Your task to perform on an android device: check battery use Image 0: 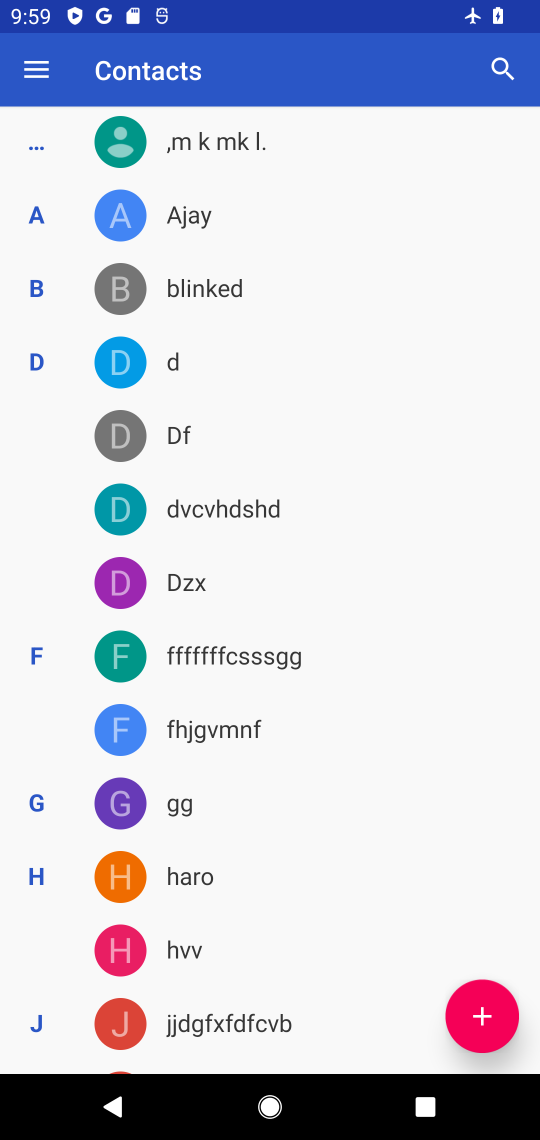
Step 0: press home button
Your task to perform on an android device: check battery use Image 1: 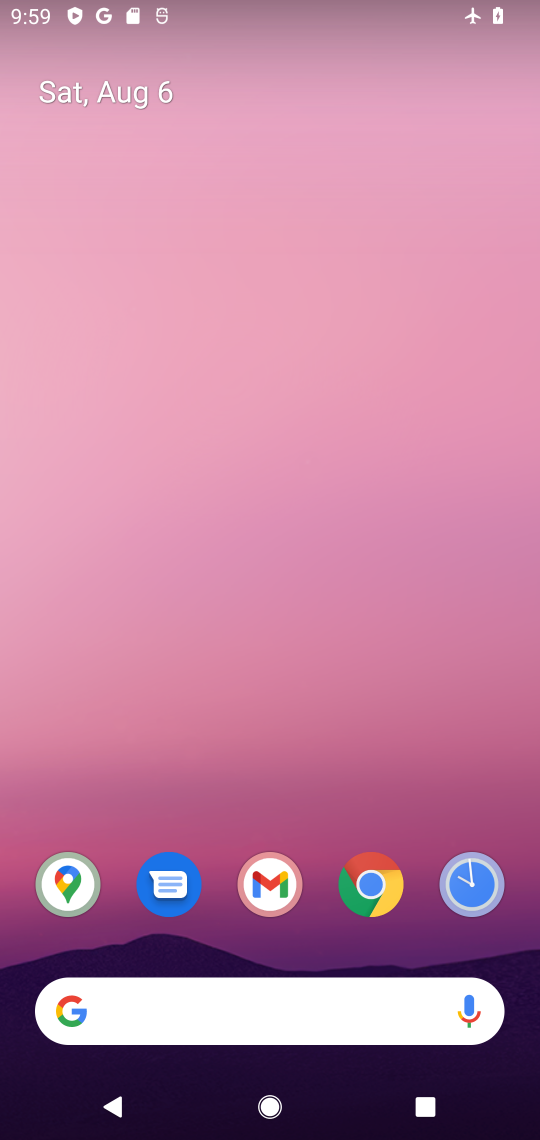
Step 1: drag from (411, 948) to (399, 122)
Your task to perform on an android device: check battery use Image 2: 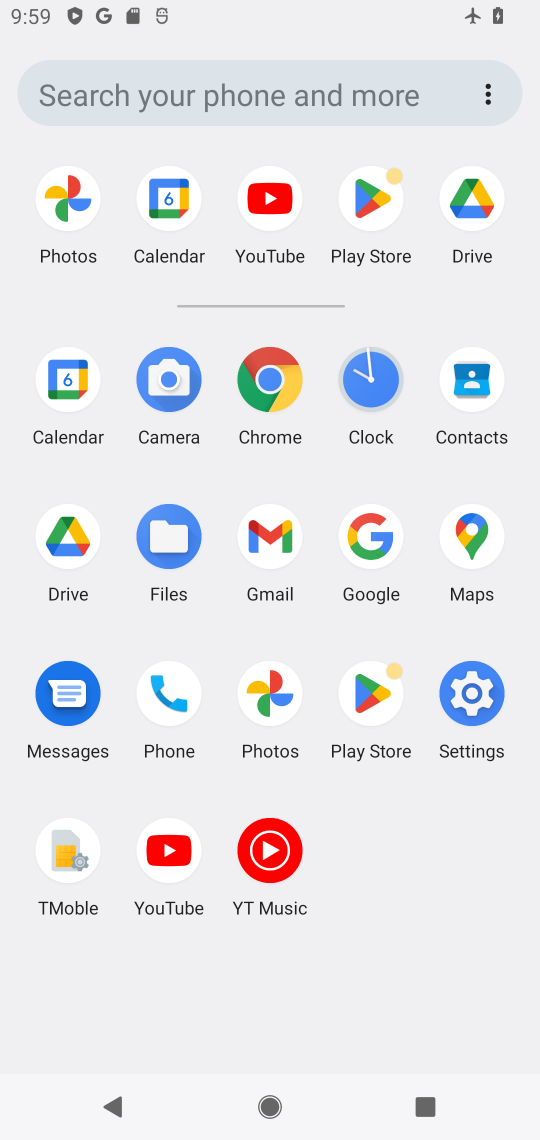
Step 2: click (472, 693)
Your task to perform on an android device: check battery use Image 3: 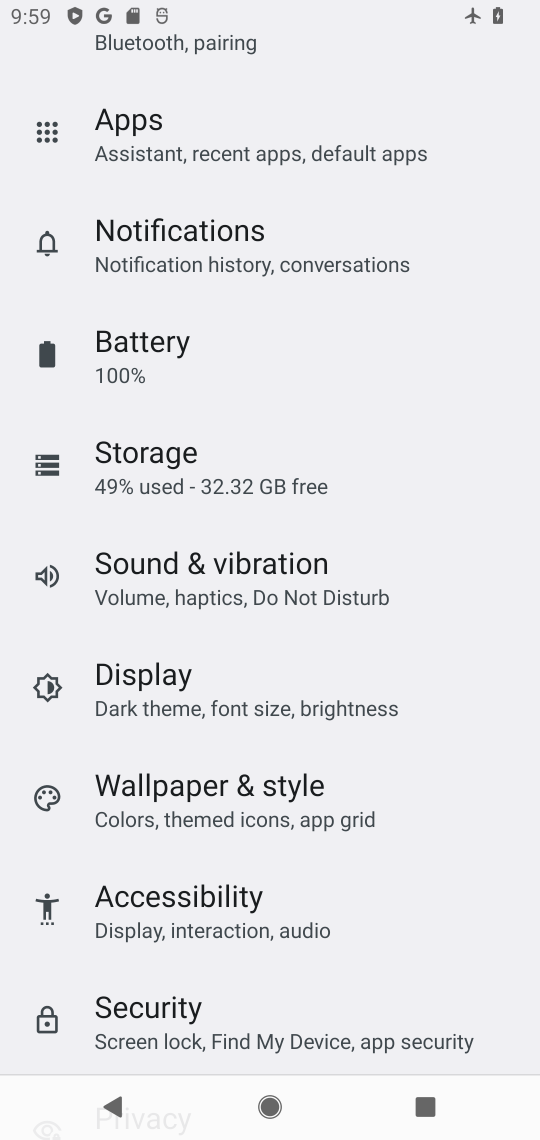
Step 3: click (112, 342)
Your task to perform on an android device: check battery use Image 4: 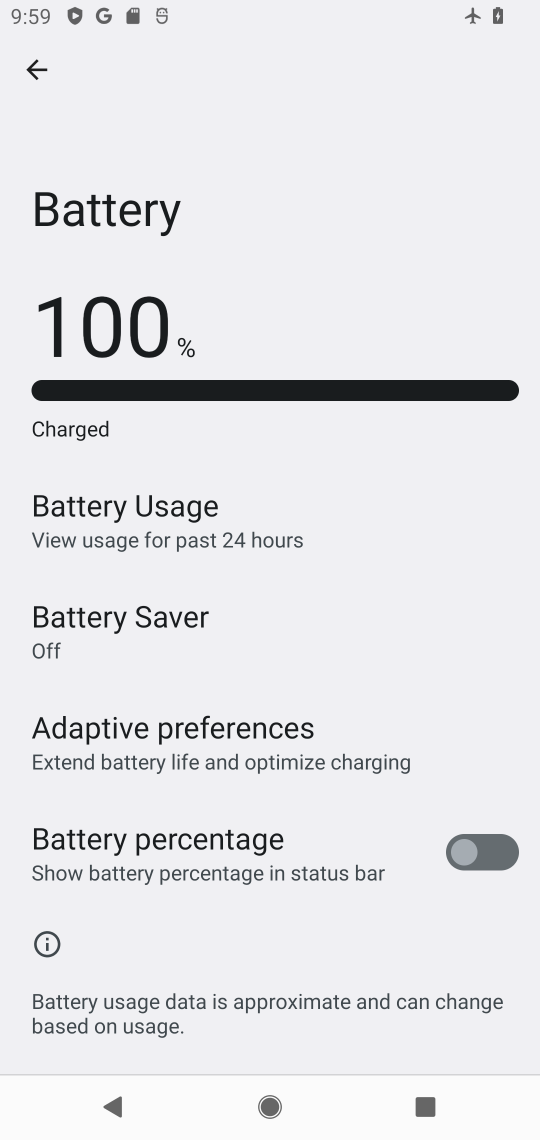
Step 4: click (139, 542)
Your task to perform on an android device: check battery use Image 5: 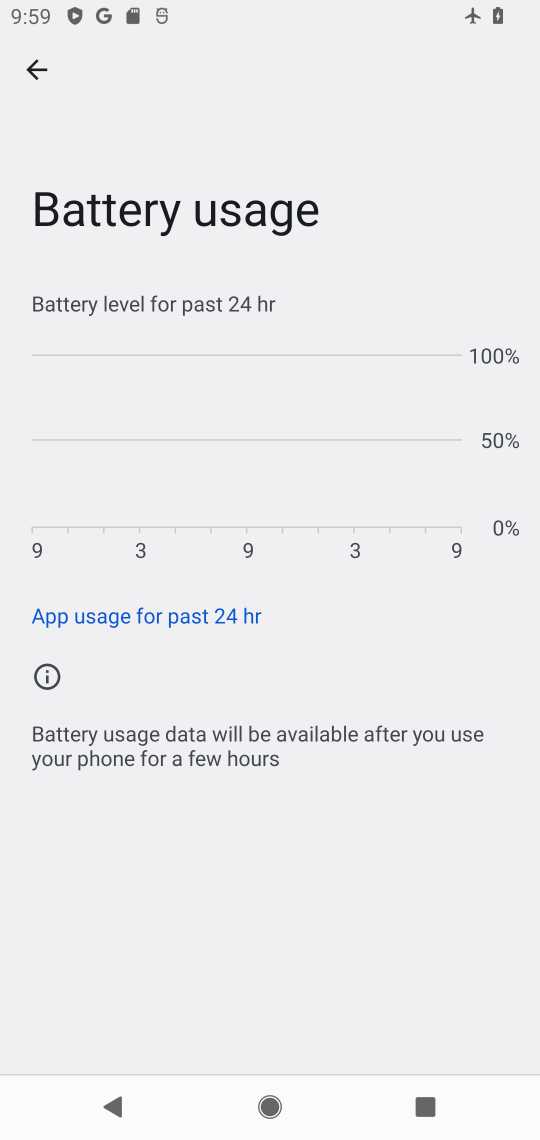
Step 5: task complete